Your task to perform on an android device: Show me productivity apps on the Play Store Image 0: 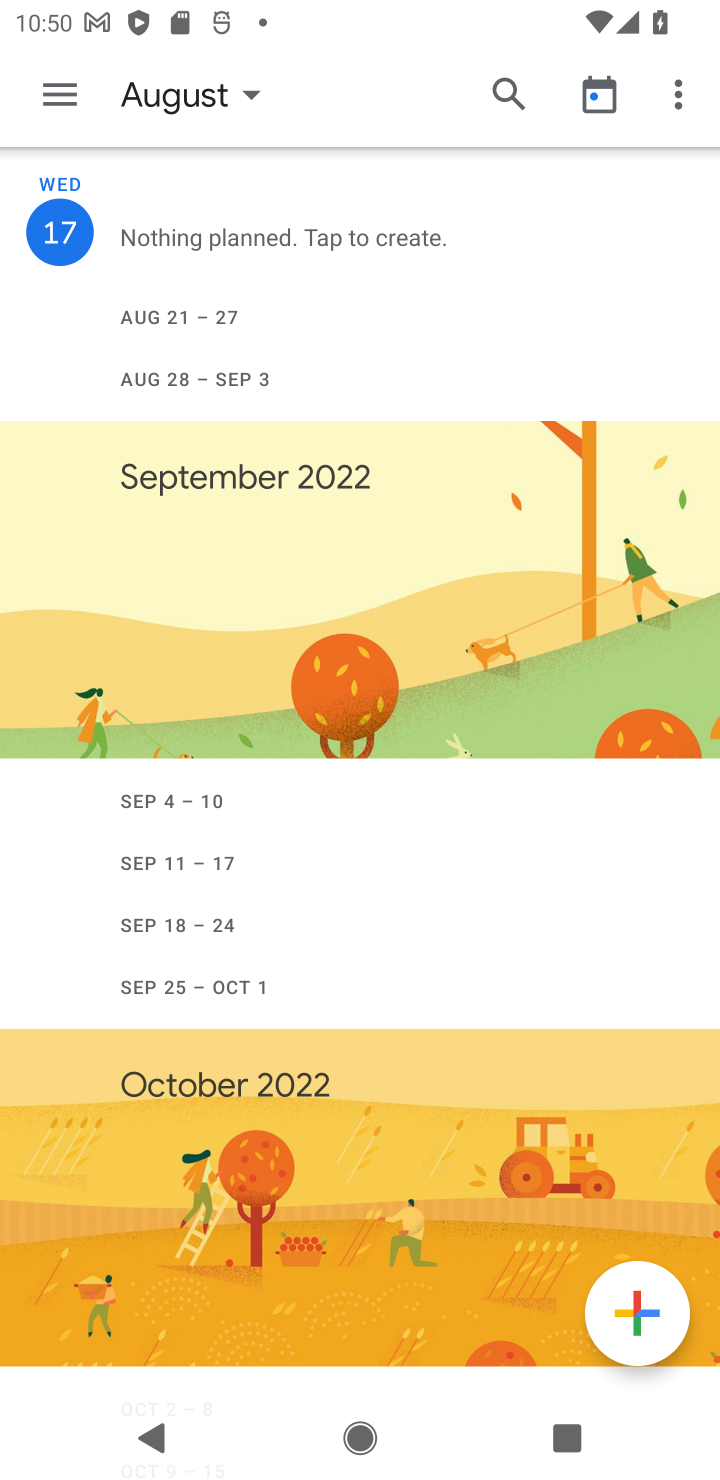
Step 0: press home button
Your task to perform on an android device: Show me productivity apps on the Play Store Image 1: 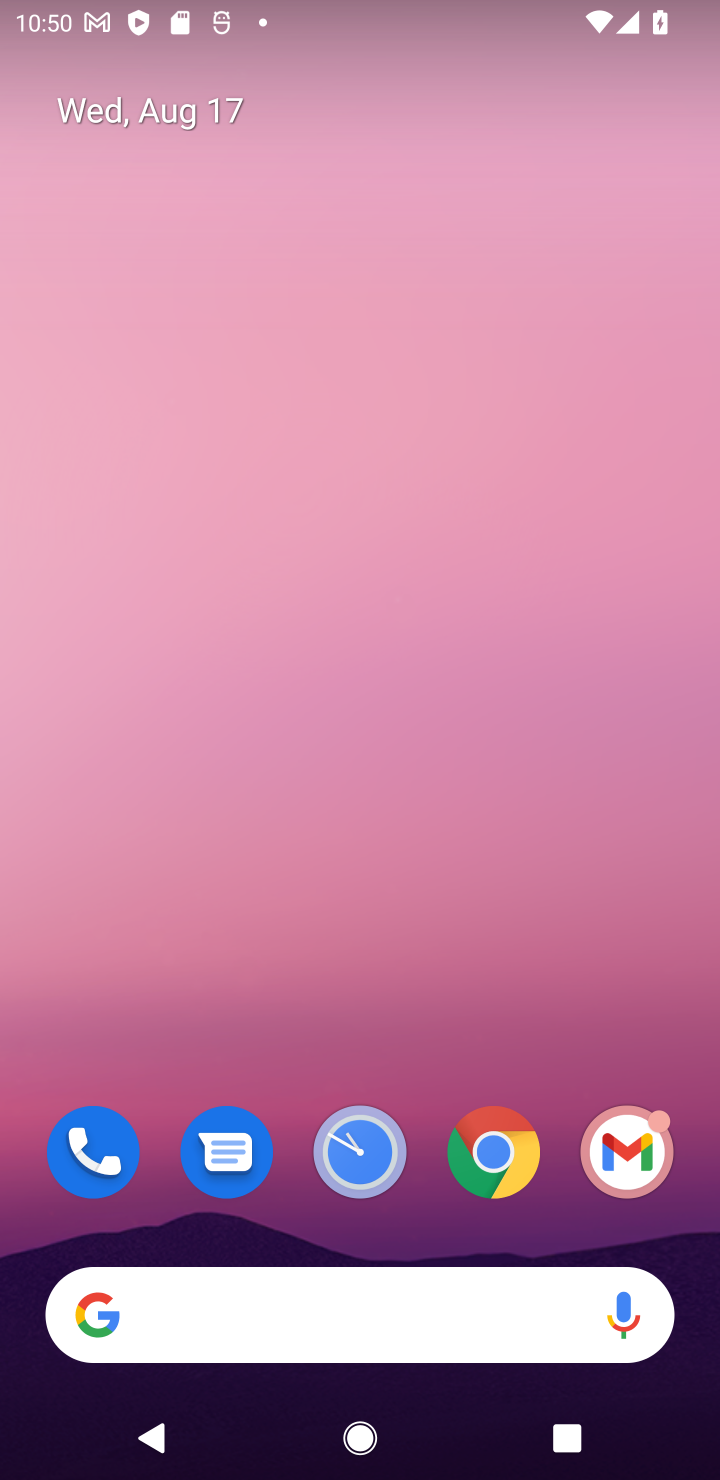
Step 1: drag from (608, 1250) to (323, 25)
Your task to perform on an android device: Show me productivity apps on the Play Store Image 2: 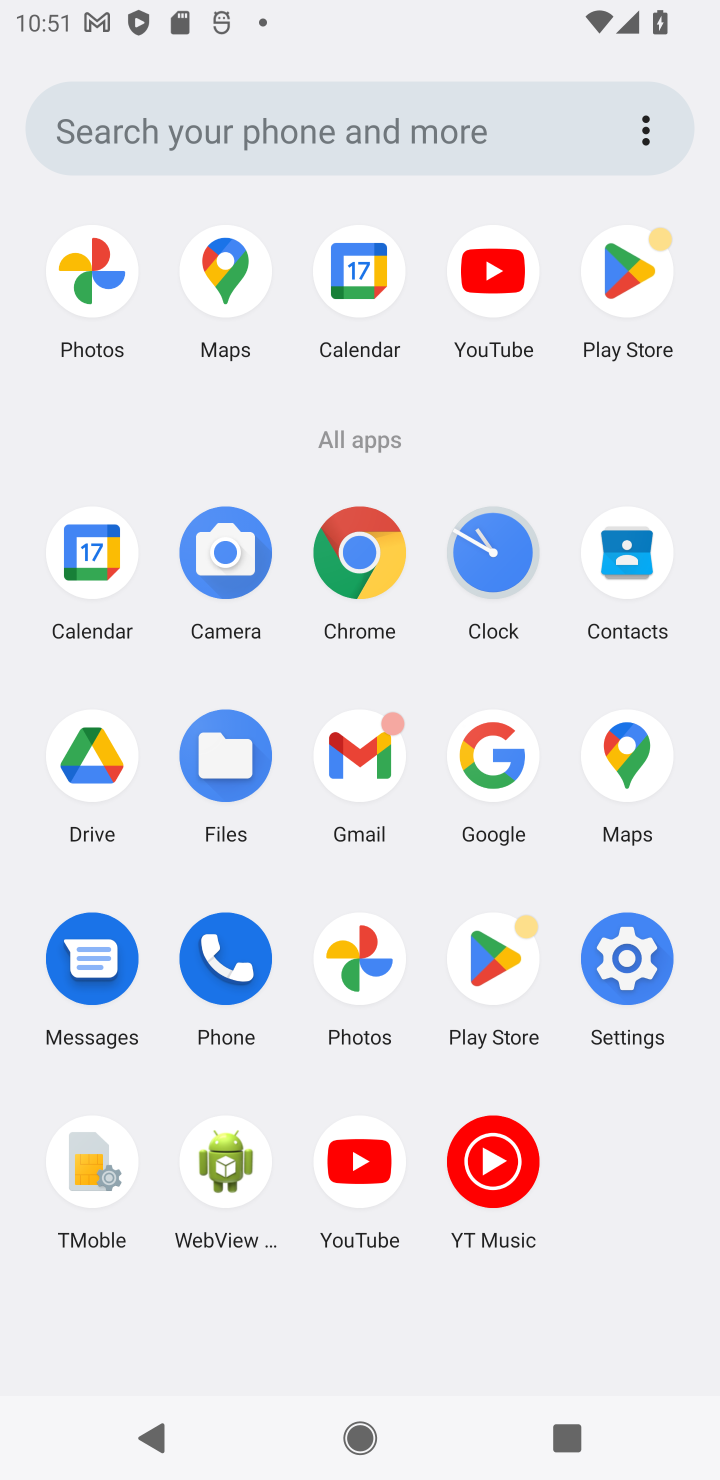
Step 2: click (480, 952)
Your task to perform on an android device: Show me productivity apps on the Play Store Image 3: 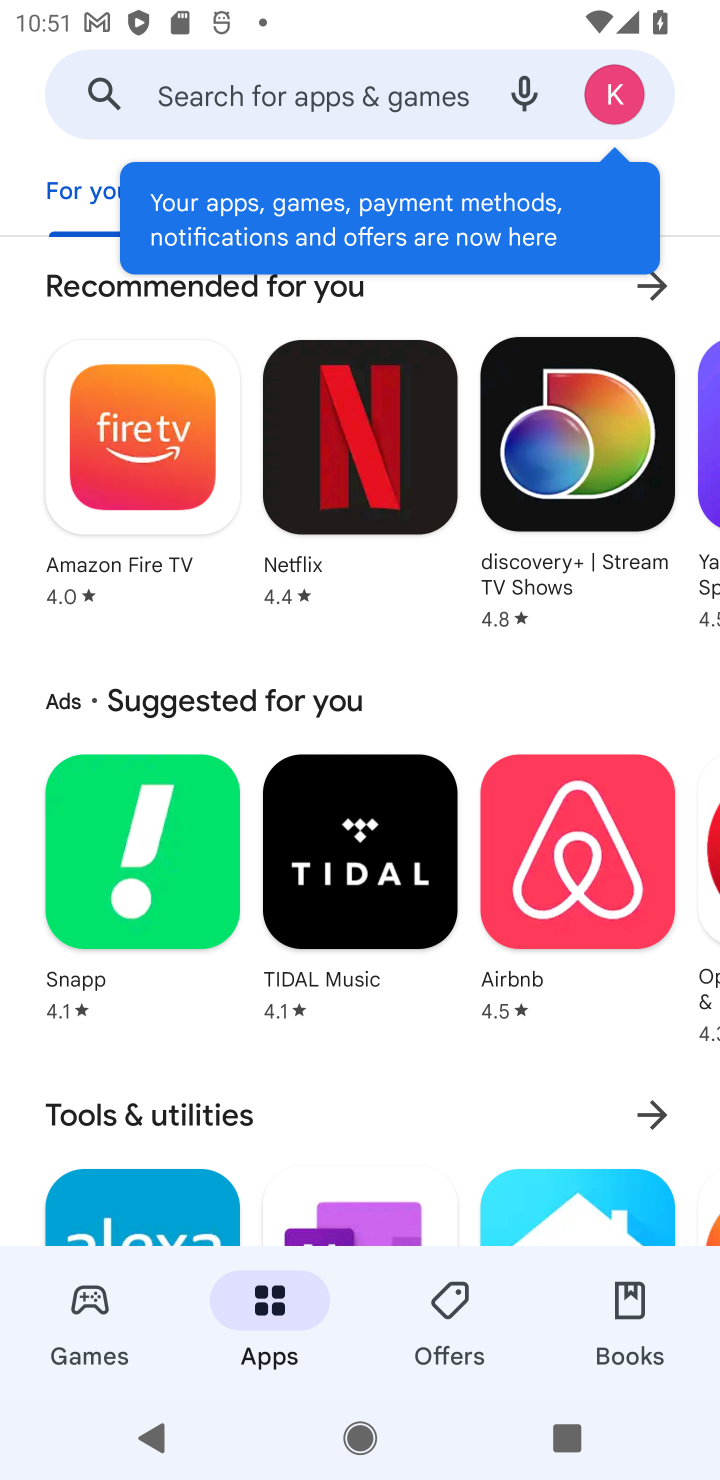
Step 3: task complete